Your task to perform on an android device: Show me popular games on the Play Store Image 0: 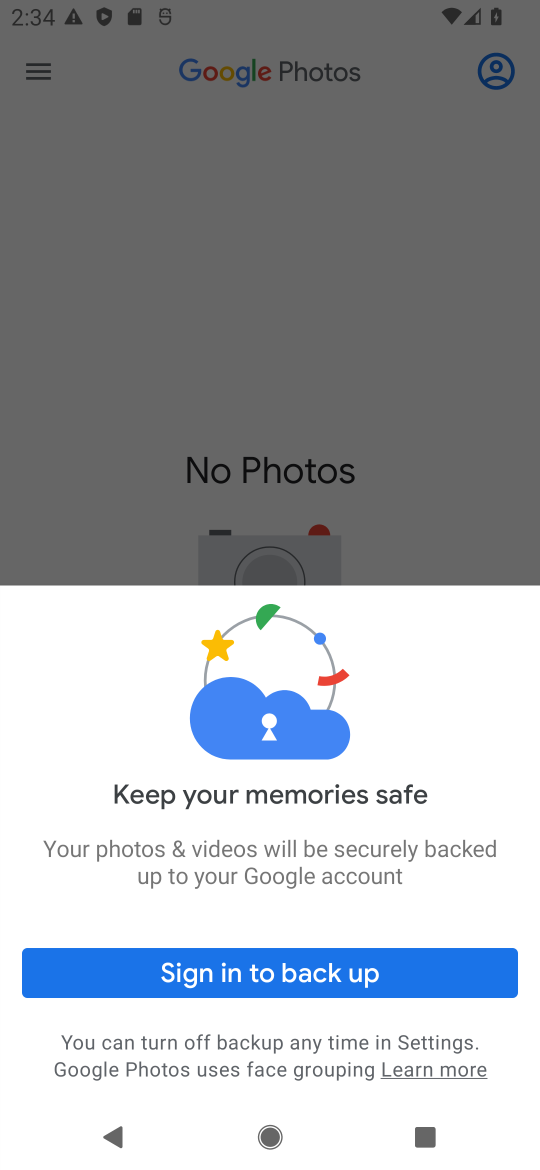
Step 0: press home button
Your task to perform on an android device: Show me popular games on the Play Store Image 1: 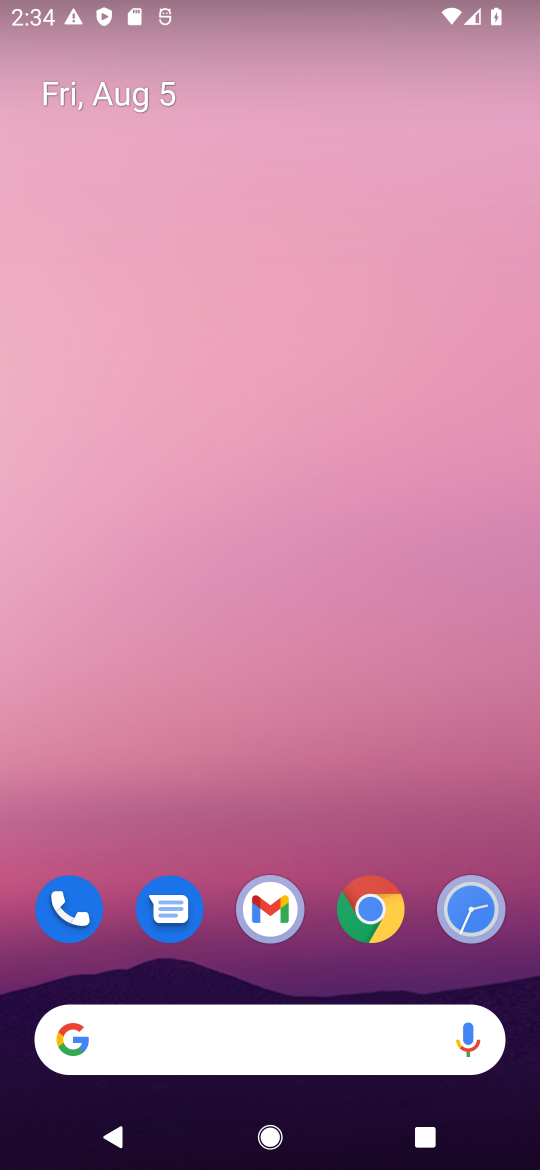
Step 1: drag from (313, 818) to (344, 363)
Your task to perform on an android device: Show me popular games on the Play Store Image 2: 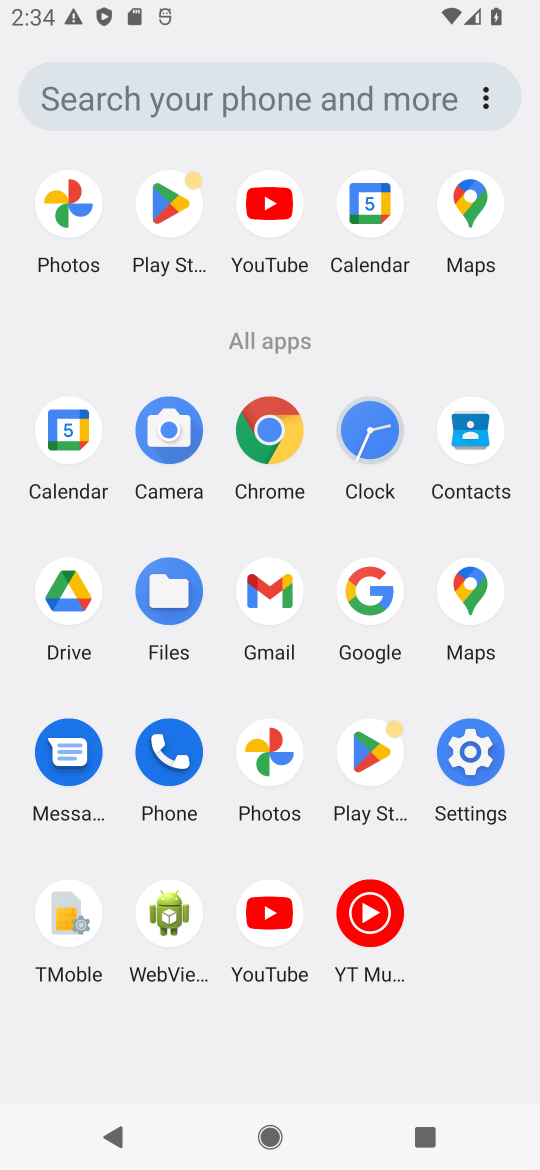
Step 2: click (372, 758)
Your task to perform on an android device: Show me popular games on the Play Store Image 3: 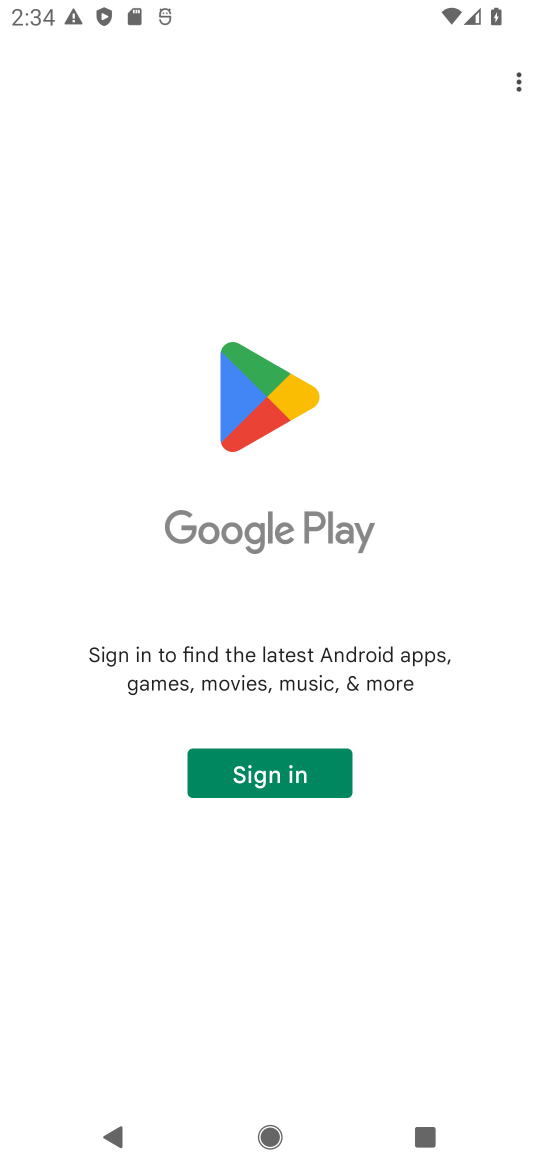
Step 3: task complete